Your task to perform on an android device: Go to calendar. Show me events next week Image 0: 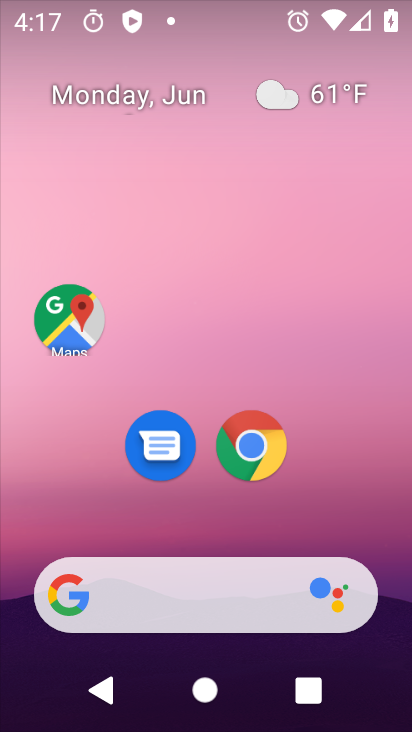
Step 0: drag from (178, 500) to (241, 62)
Your task to perform on an android device: Go to calendar. Show me events next week Image 1: 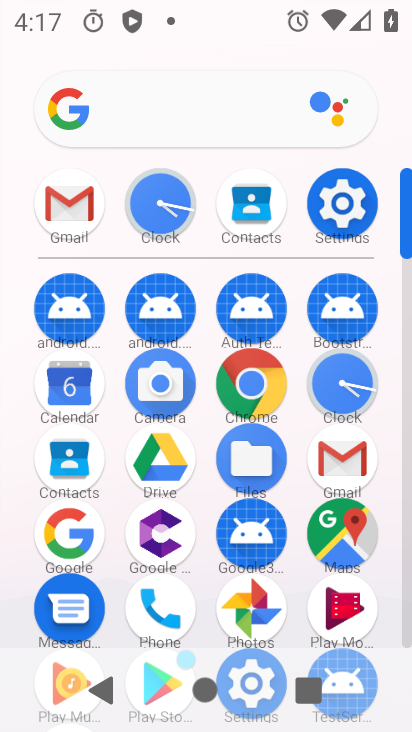
Step 1: click (67, 391)
Your task to perform on an android device: Go to calendar. Show me events next week Image 2: 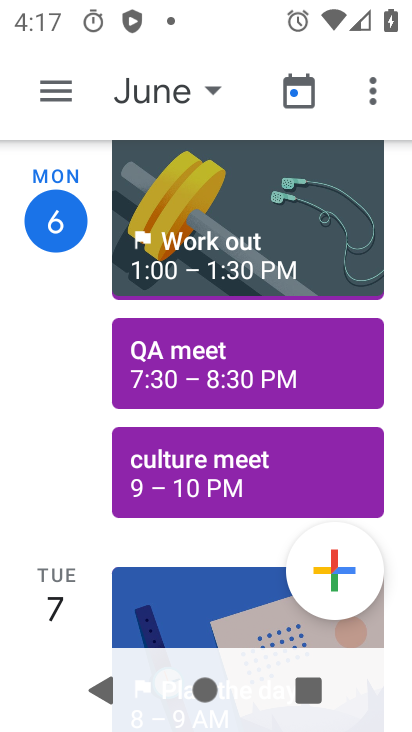
Step 2: click (48, 100)
Your task to perform on an android device: Go to calendar. Show me events next week Image 3: 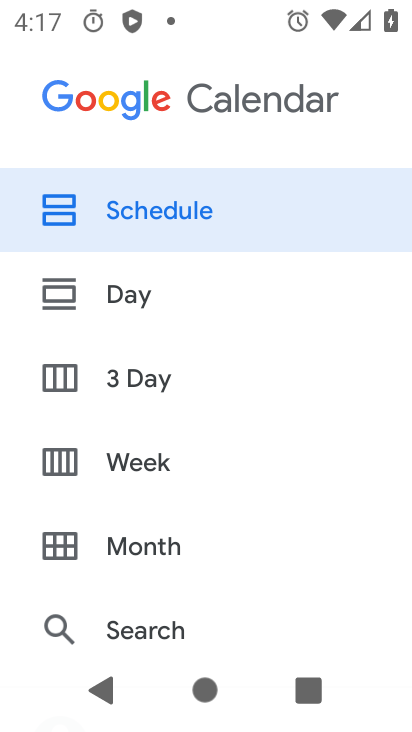
Step 3: click (130, 461)
Your task to perform on an android device: Go to calendar. Show me events next week Image 4: 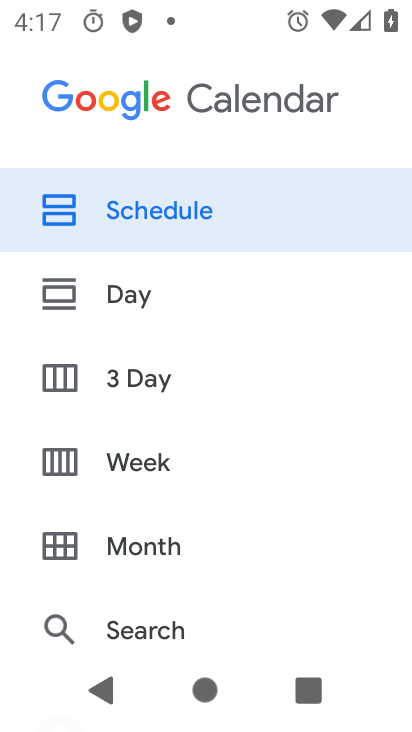
Step 4: click (130, 462)
Your task to perform on an android device: Go to calendar. Show me events next week Image 5: 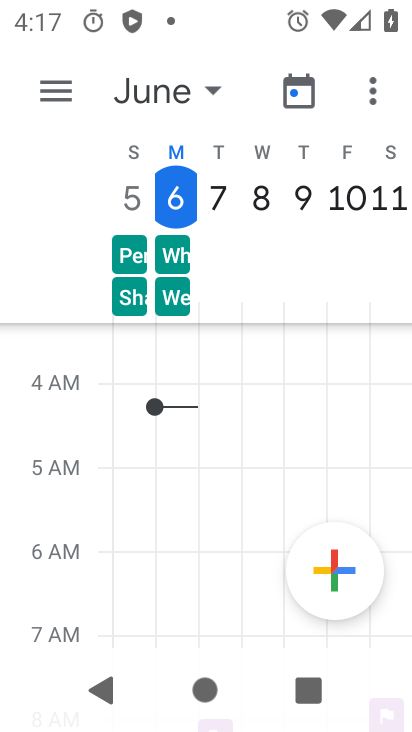
Step 5: click (168, 84)
Your task to perform on an android device: Go to calendar. Show me events next week Image 6: 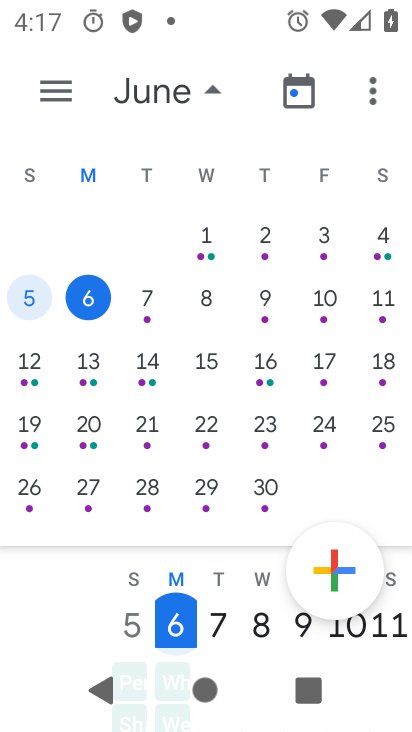
Step 6: click (34, 373)
Your task to perform on an android device: Go to calendar. Show me events next week Image 7: 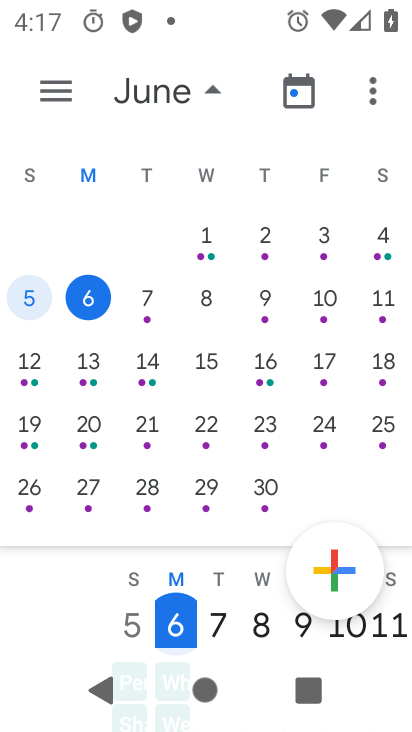
Step 7: click (34, 373)
Your task to perform on an android device: Go to calendar. Show me events next week Image 8: 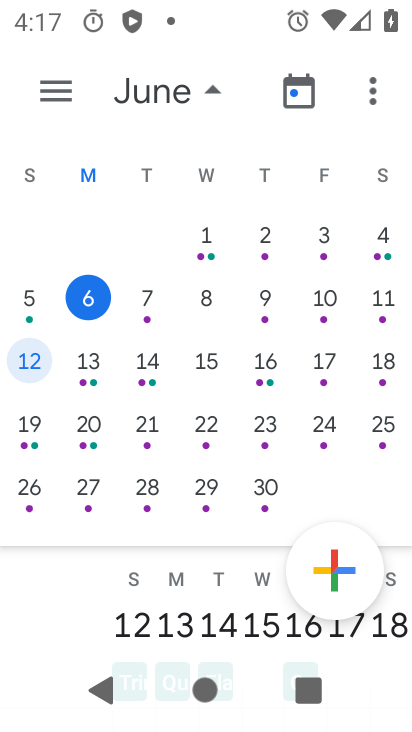
Step 8: task complete